Your task to perform on an android device: toggle notification dots Image 0: 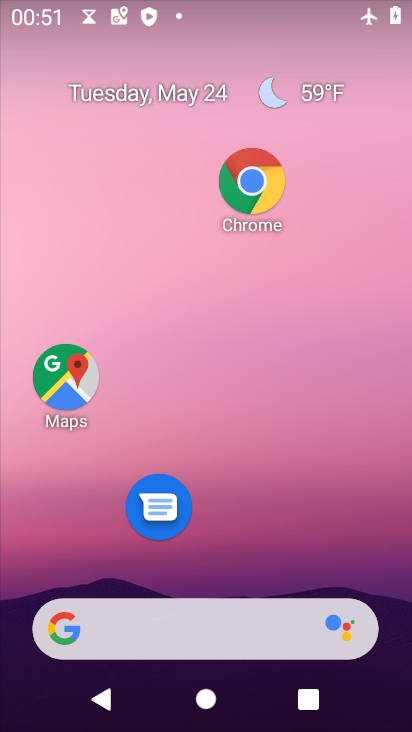
Step 0: drag from (271, 597) to (362, 229)
Your task to perform on an android device: toggle notification dots Image 1: 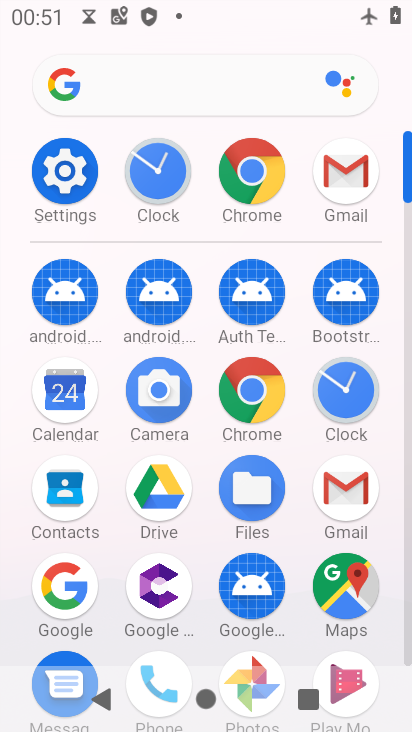
Step 1: click (65, 155)
Your task to perform on an android device: toggle notification dots Image 2: 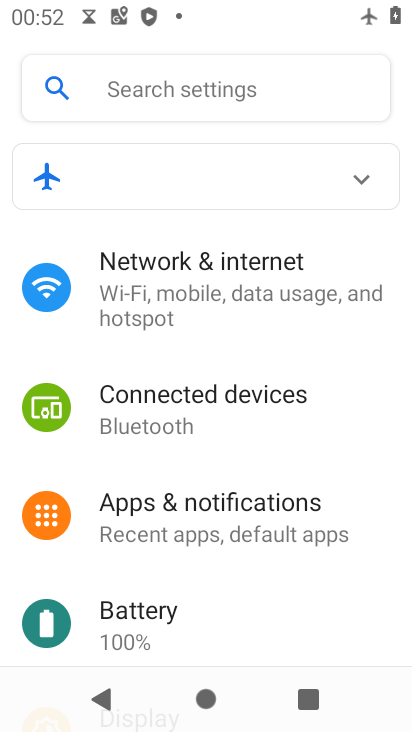
Step 2: click (271, 86)
Your task to perform on an android device: toggle notification dots Image 3: 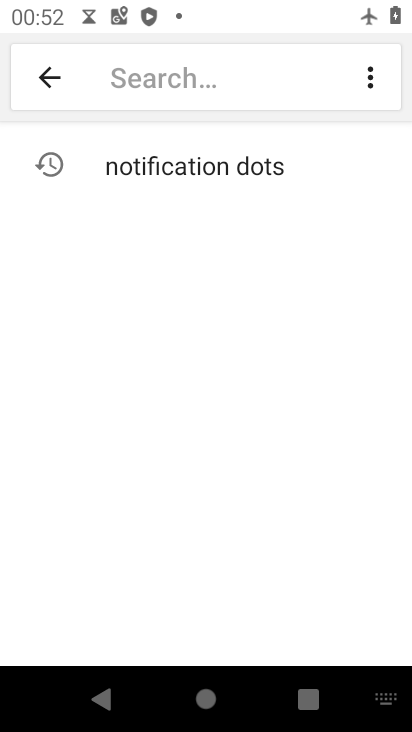
Step 3: type "notification dots"
Your task to perform on an android device: toggle notification dots Image 4: 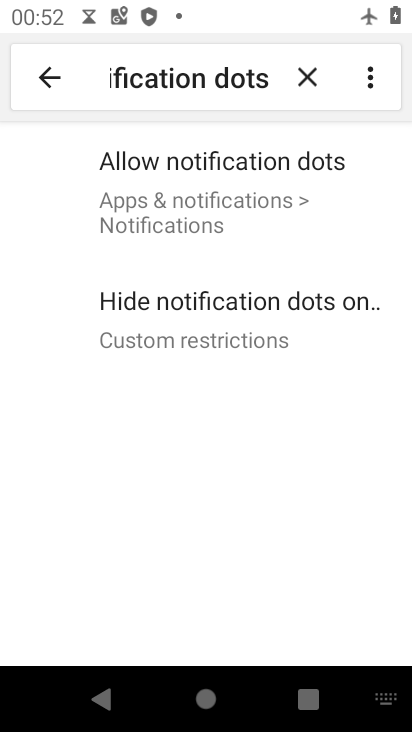
Step 4: click (256, 196)
Your task to perform on an android device: toggle notification dots Image 5: 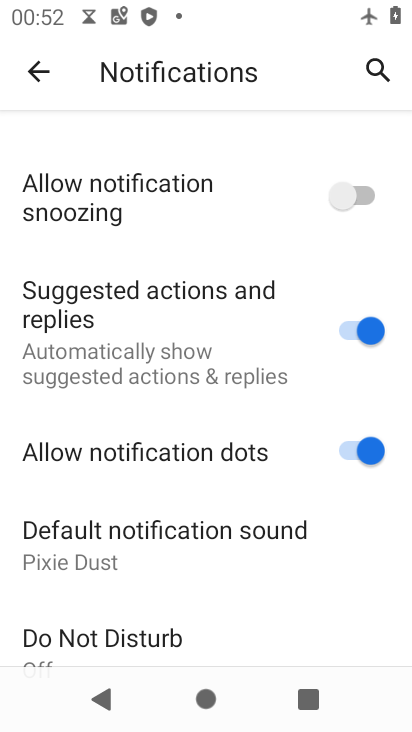
Step 5: task complete